Your task to perform on an android device: add a label to a message in the gmail app Image 0: 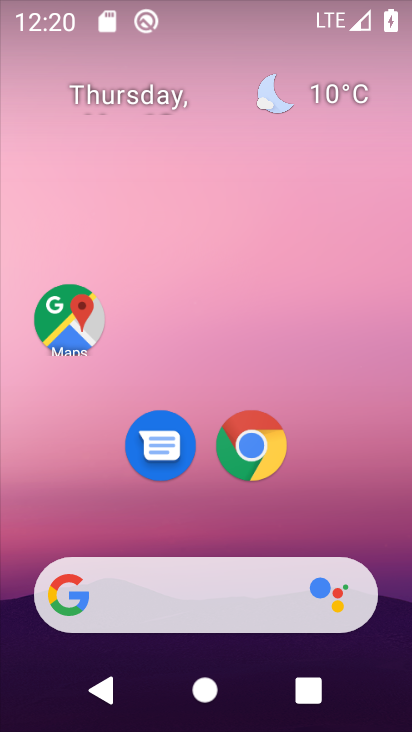
Step 0: drag from (167, 534) to (272, 31)
Your task to perform on an android device: add a label to a message in the gmail app Image 1: 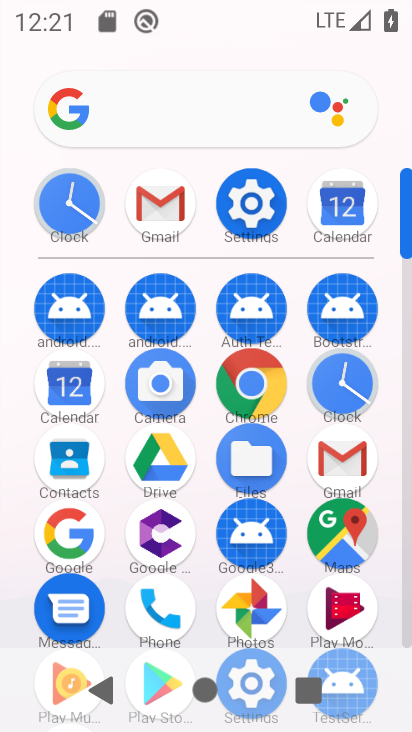
Step 1: click (338, 465)
Your task to perform on an android device: add a label to a message in the gmail app Image 2: 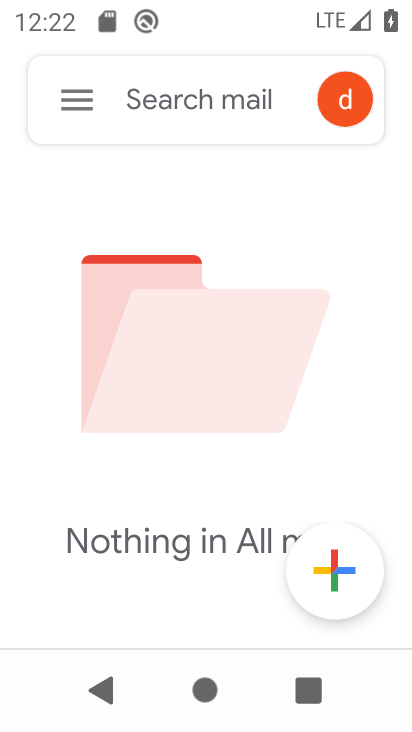
Step 2: click (78, 106)
Your task to perform on an android device: add a label to a message in the gmail app Image 3: 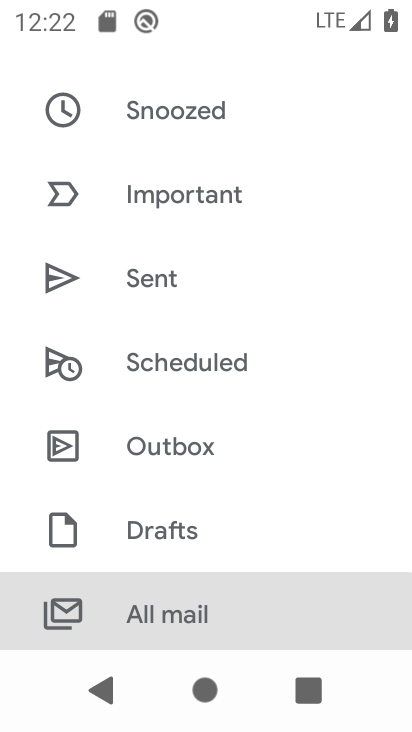
Step 3: click (143, 607)
Your task to perform on an android device: add a label to a message in the gmail app Image 4: 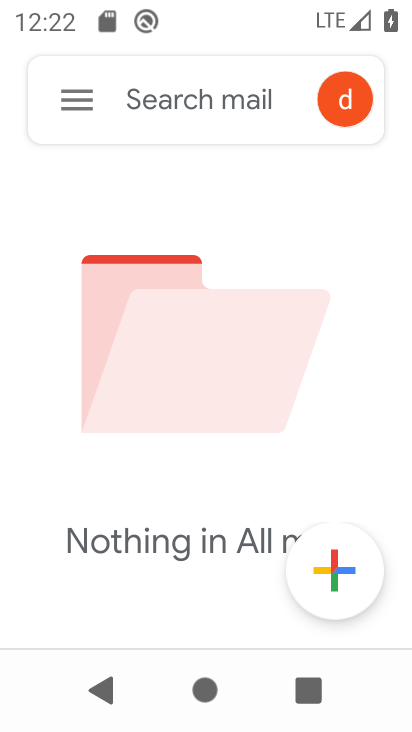
Step 4: task complete